Your task to perform on an android device: What is the recent news? Image 0: 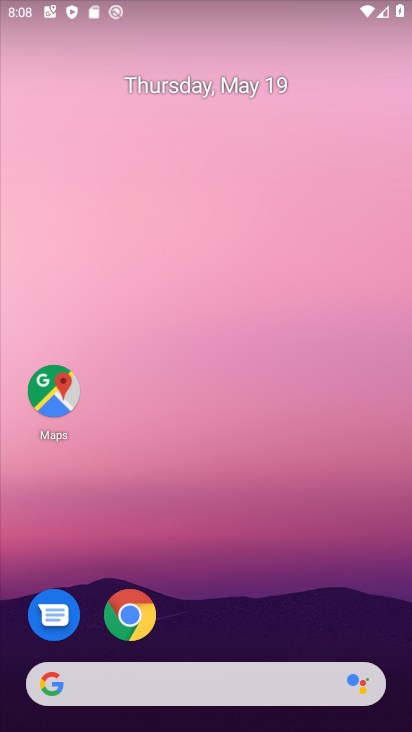
Step 0: drag from (246, 608) to (255, 49)
Your task to perform on an android device: What is the recent news? Image 1: 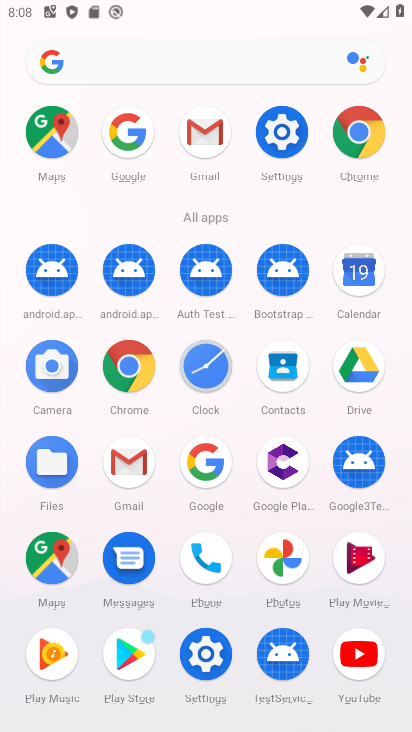
Step 1: click (134, 131)
Your task to perform on an android device: What is the recent news? Image 2: 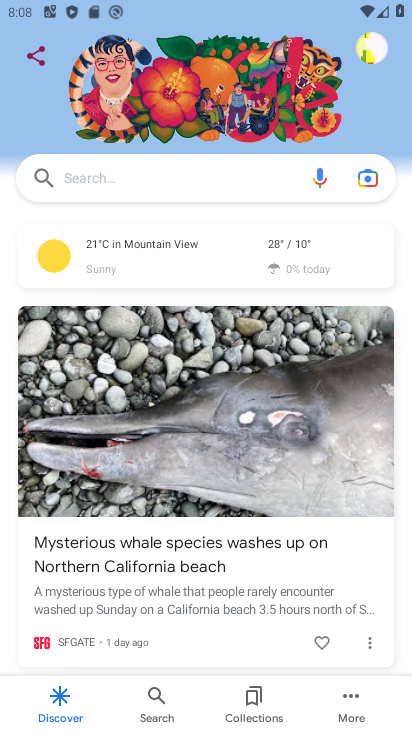
Step 2: click (181, 185)
Your task to perform on an android device: What is the recent news? Image 3: 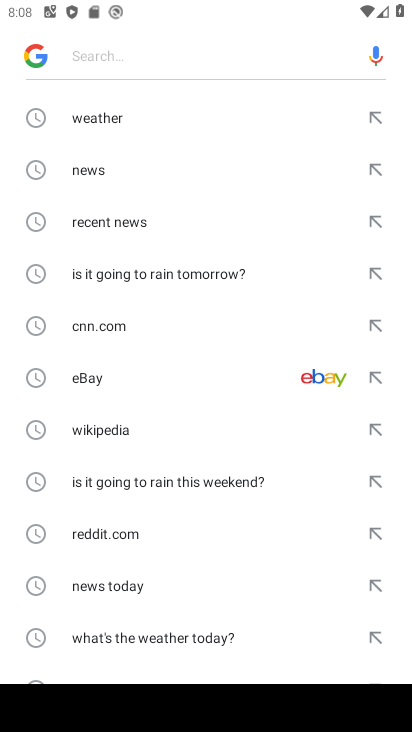
Step 3: click (91, 177)
Your task to perform on an android device: What is the recent news? Image 4: 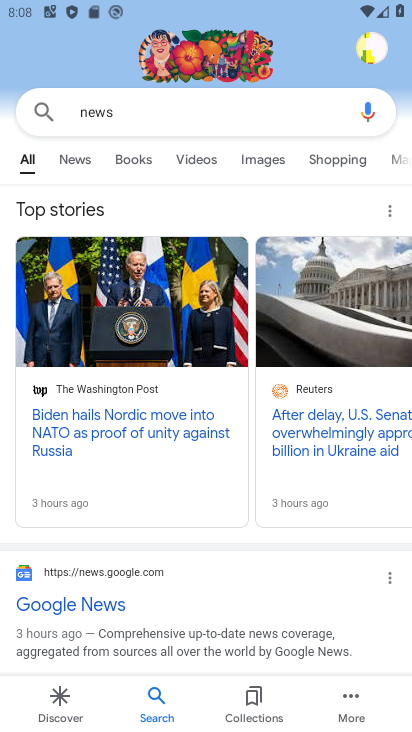
Step 4: task complete